Your task to perform on an android device: delete location history Image 0: 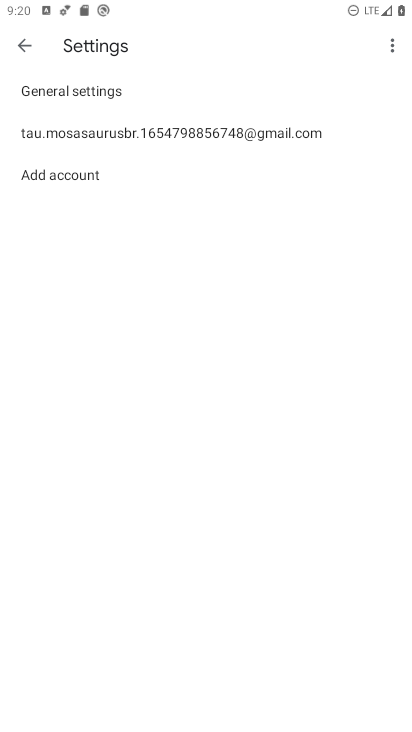
Step 0: press home button
Your task to perform on an android device: delete location history Image 1: 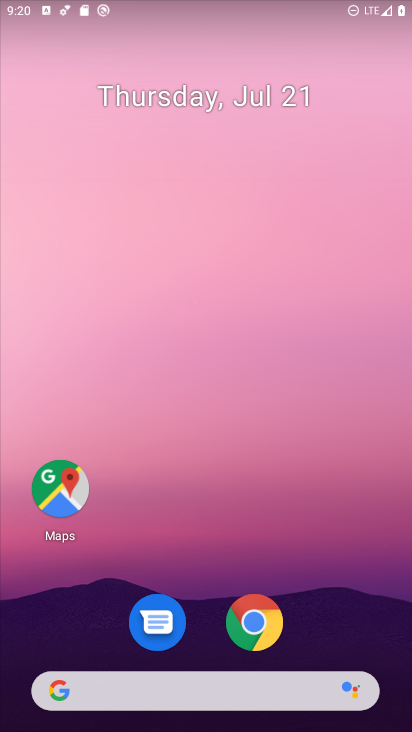
Step 1: click (51, 475)
Your task to perform on an android device: delete location history Image 2: 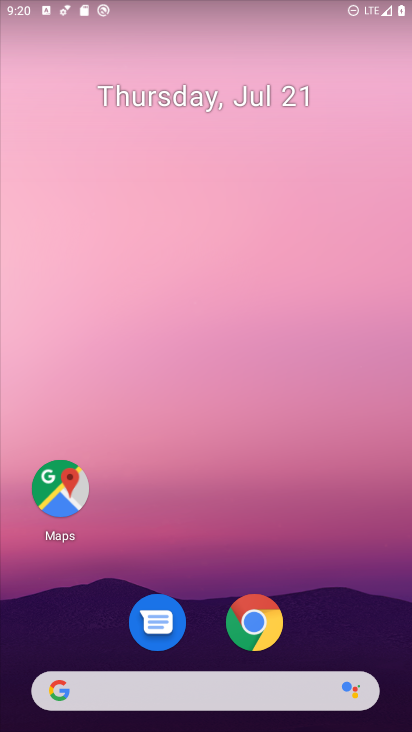
Step 2: click (51, 475)
Your task to perform on an android device: delete location history Image 3: 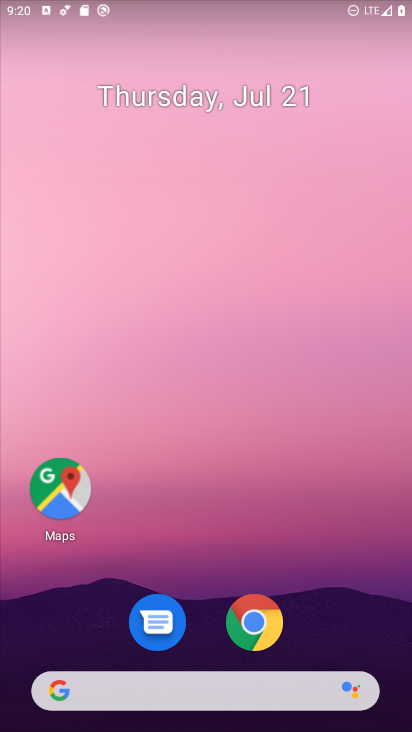
Step 3: click (51, 475)
Your task to perform on an android device: delete location history Image 4: 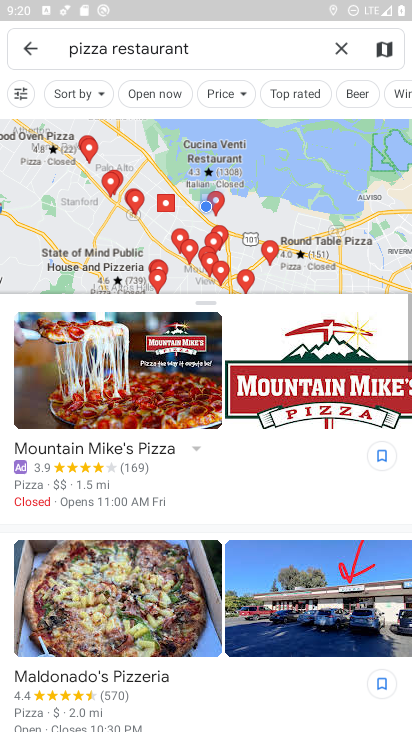
Step 4: click (28, 40)
Your task to perform on an android device: delete location history Image 5: 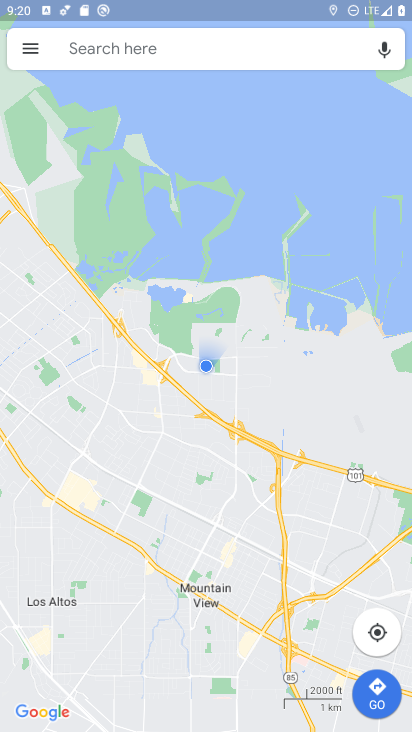
Step 5: click (28, 40)
Your task to perform on an android device: delete location history Image 6: 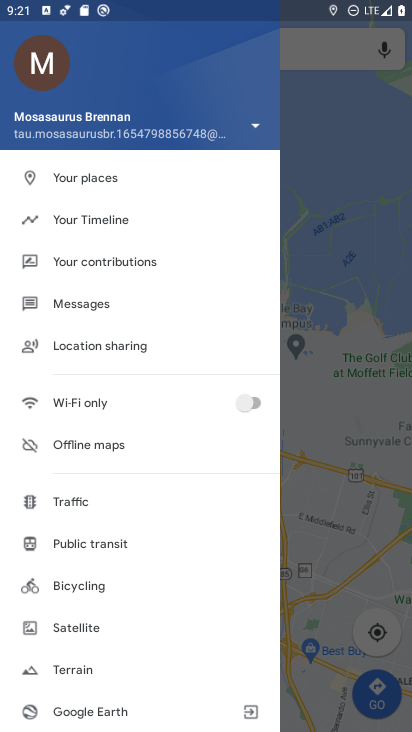
Step 6: click (125, 225)
Your task to perform on an android device: delete location history Image 7: 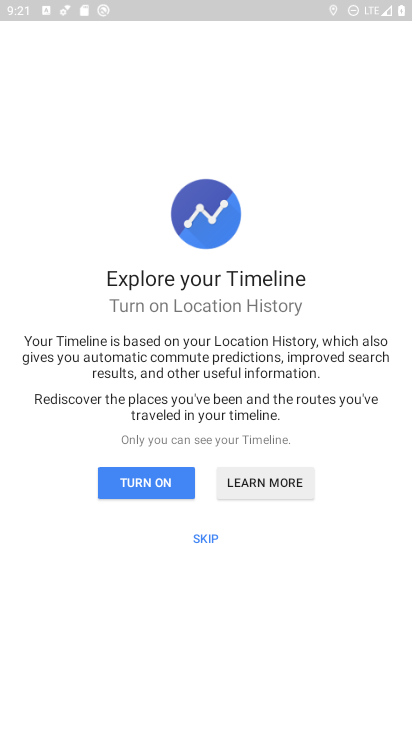
Step 7: click (201, 536)
Your task to perform on an android device: delete location history Image 8: 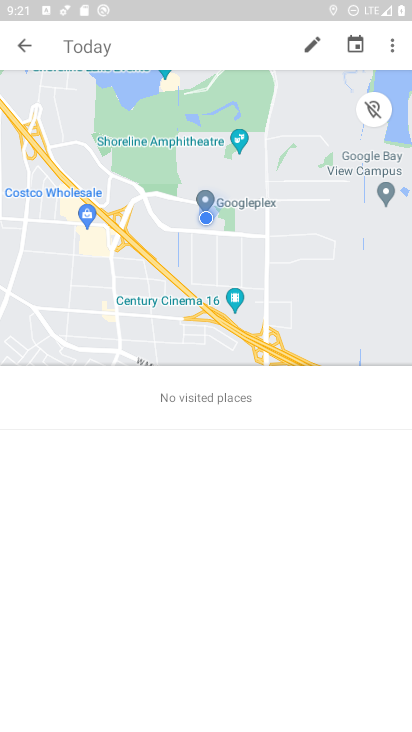
Step 8: click (392, 44)
Your task to perform on an android device: delete location history Image 9: 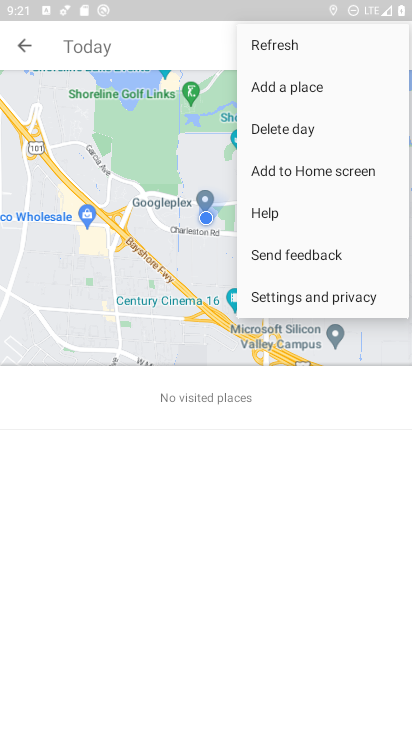
Step 9: click (334, 293)
Your task to perform on an android device: delete location history Image 10: 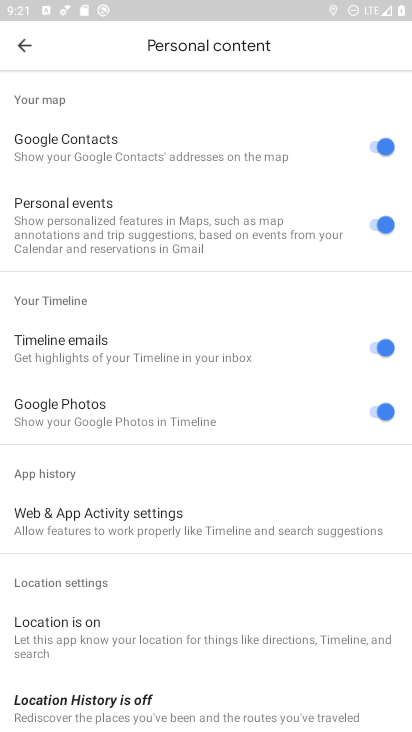
Step 10: drag from (279, 675) to (274, 187)
Your task to perform on an android device: delete location history Image 11: 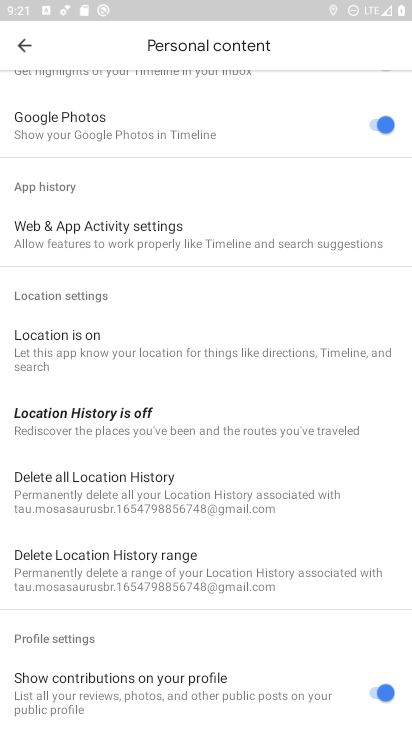
Step 11: click (146, 477)
Your task to perform on an android device: delete location history Image 12: 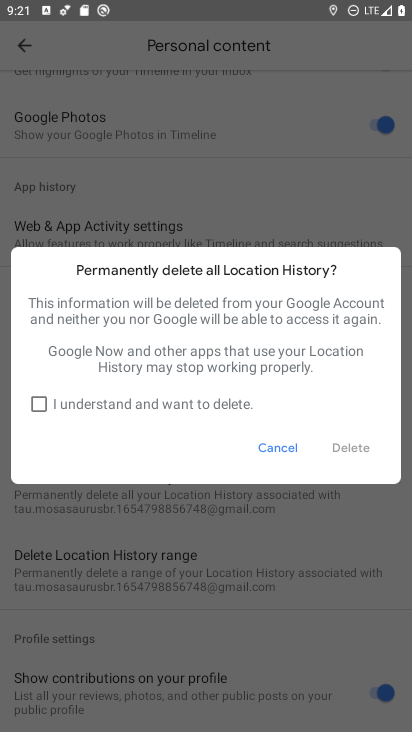
Step 12: click (41, 397)
Your task to perform on an android device: delete location history Image 13: 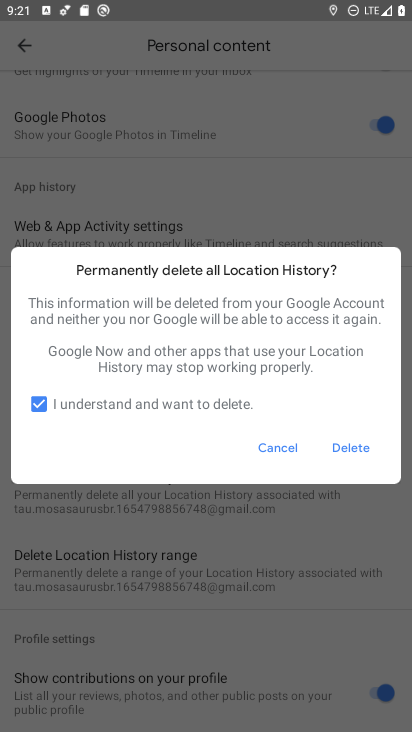
Step 13: click (360, 447)
Your task to perform on an android device: delete location history Image 14: 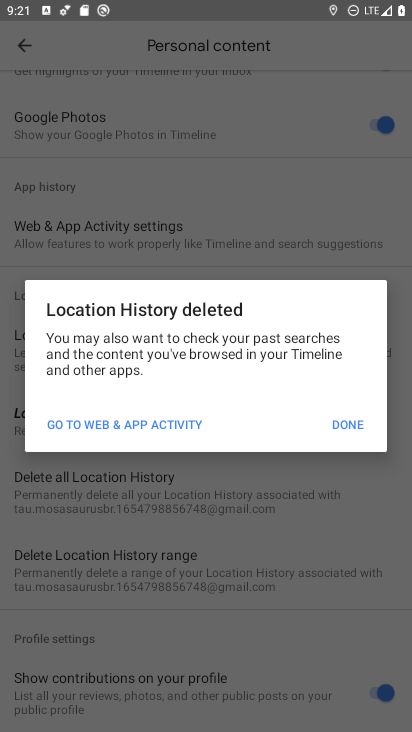
Step 14: task complete